Your task to perform on an android device: Search for vegetarian restaurants on Maps Image 0: 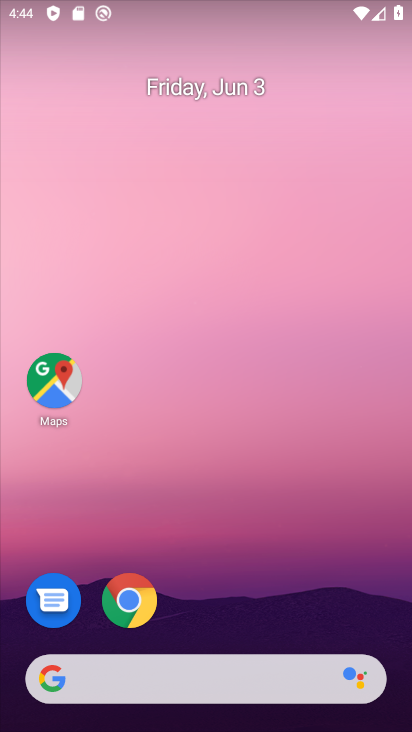
Step 0: click (66, 386)
Your task to perform on an android device: Search for vegetarian restaurants on Maps Image 1: 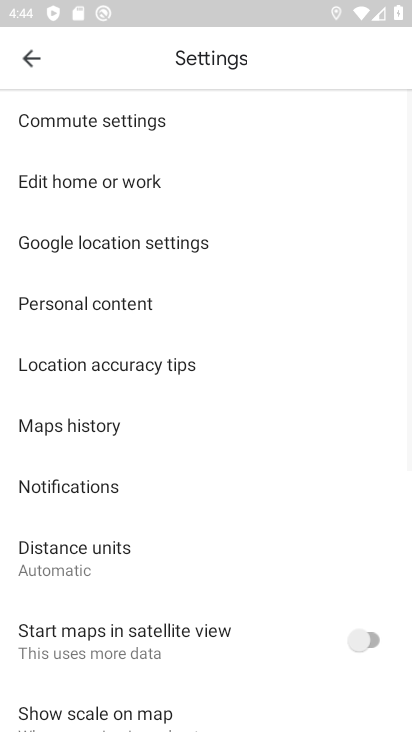
Step 1: click (30, 49)
Your task to perform on an android device: Search for vegetarian restaurants on Maps Image 2: 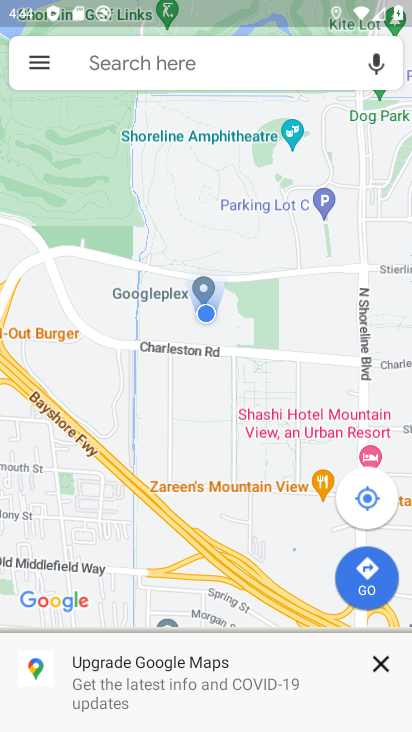
Step 2: click (194, 71)
Your task to perform on an android device: Search for vegetarian restaurants on Maps Image 3: 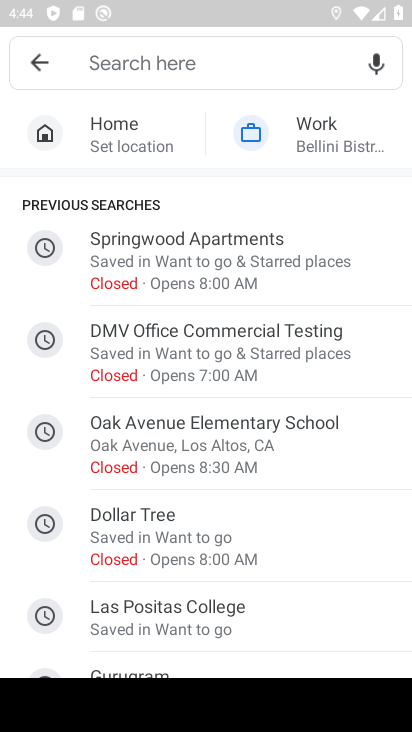
Step 3: type "vegetarian restaurants"
Your task to perform on an android device: Search for vegetarian restaurants on Maps Image 4: 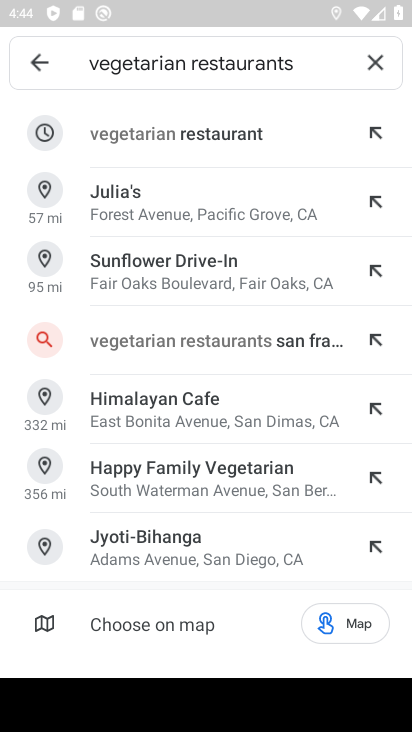
Step 4: click (241, 143)
Your task to perform on an android device: Search for vegetarian restaurants on Maps Image 5: 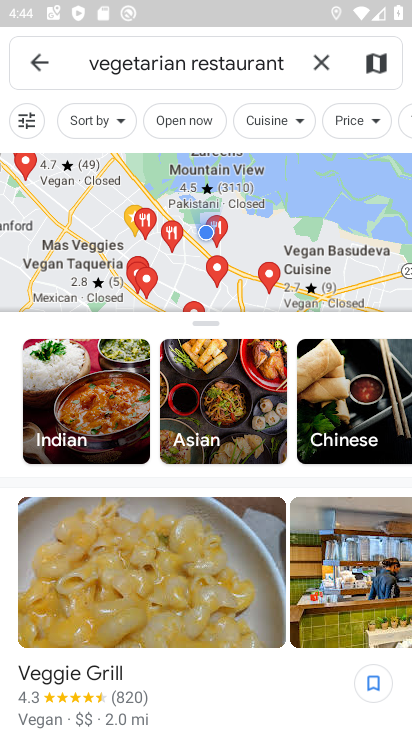
Step 5: task complete